Your task to perform on an android device: Show the shopping cart on amazon. Add razer blade to the cart on amazon Image 0: 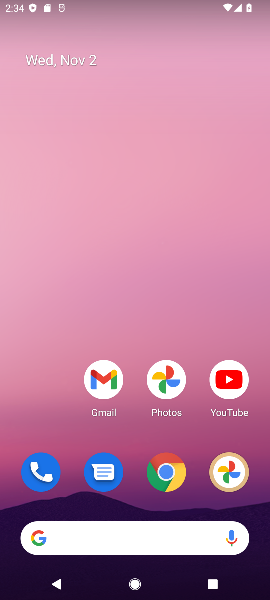
Step 0: click (167, 474)
Your task to perform on an android device: Show the shopping cart on amazon. Add razer blade to the cart on amazon Image 1: 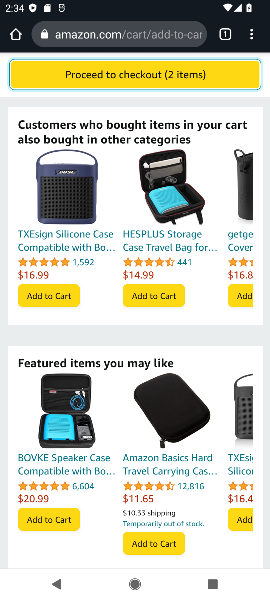
Step 1: click (97, 35)
Your task to perform on an android device: Show the shopping cart on amazon. Add razer blade to the cart on amazon Image 2: 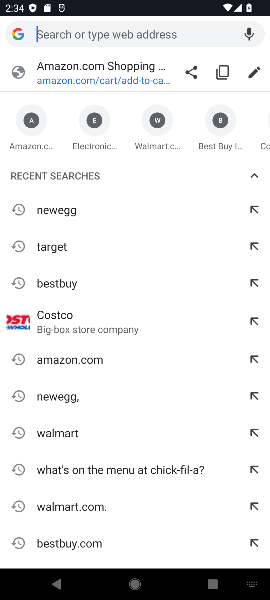
Step 2: type "amazon"
Your task to perform on an android device: Show the shopping cart on amazon. Add razer blade to the cart on amazon Image 3: 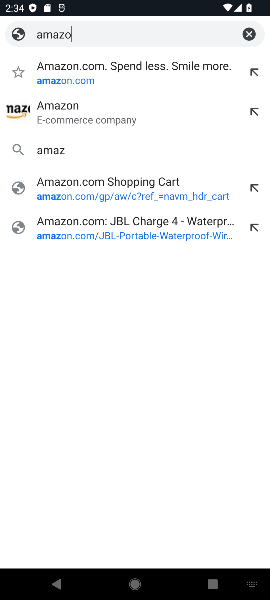
Step 3: type ""
Your task to perform on an android device: Show the shopping cart on amazon. Add razer blade to the cart on amazon Image 4: 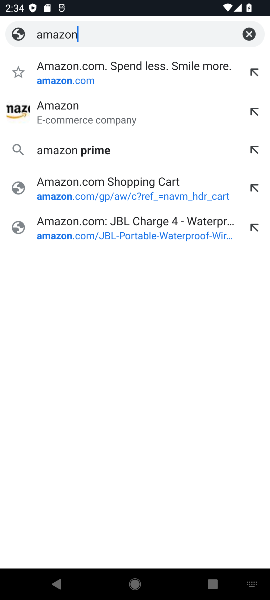
Step 4: click (184, 71)
Your task to perform on an android device: Show the shopping cart on amazon. Add razer blade to the cart on amazon Image 5: 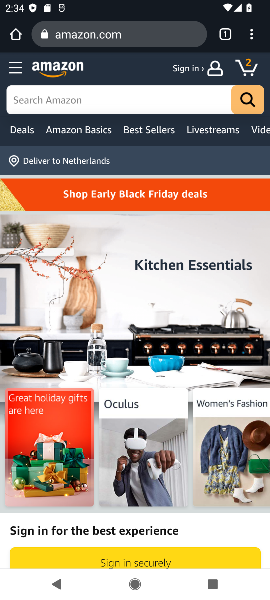
Step 5: click (48, 97)
Your task to perform on an android device: Show the shopping cart on amazon. Add razer blade to the cart on amazon Image 6: 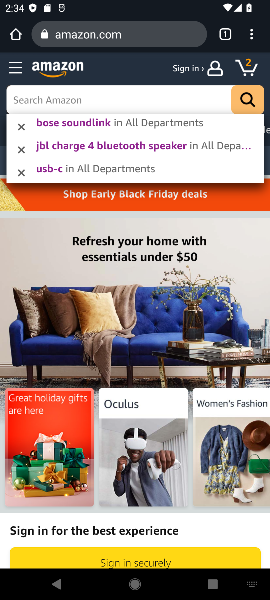
Step 6: click (253, 75)
Your task to perform on an android device: Show the shopping cart on amazon. Add razer blade to the cart on amazon Image 7: 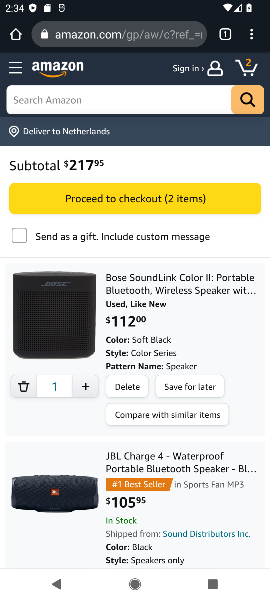
Step 7: click (18, 383)
Your task to perform on an android device: Show the shopping cart on amazon. Add razer blade to the cart on amazon Image 8: 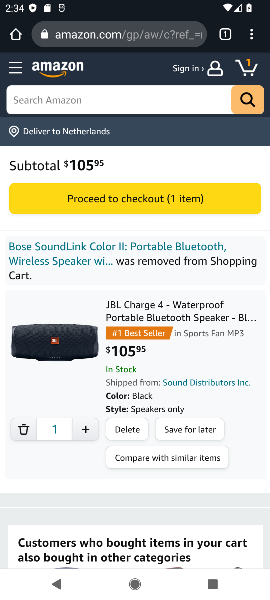
Step 8: click (22, 424)
Your task to perform on an android device: Show the shopping cart on amazon. Add razer blade to the cart on amazon Image 9: 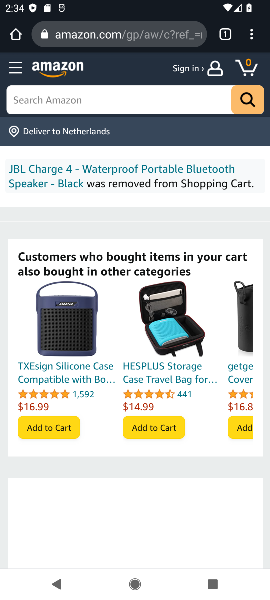
Step 9: click (122, 108)
Your task to perform on an android device: Show the shopping cart on amazon. Add razer blade to the cart on amazon Image 10: 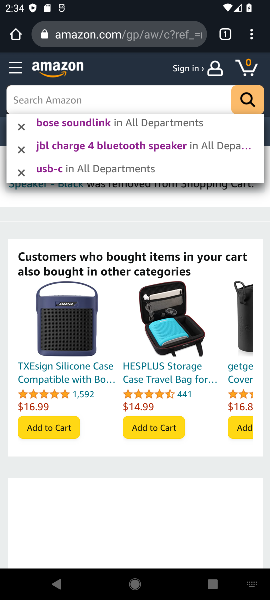
Step 10: type "razer blade"
Your task to perform on an android device: Show the shopping cart on amazon. Add razer blade to the cart on amazon Image 11: 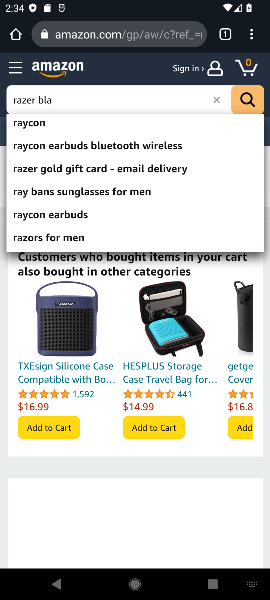
Step 11: type ""
Your task to perform on an android device: Show the shopping cart on amazon. Add razer blade to the cart on amazon Image 12: 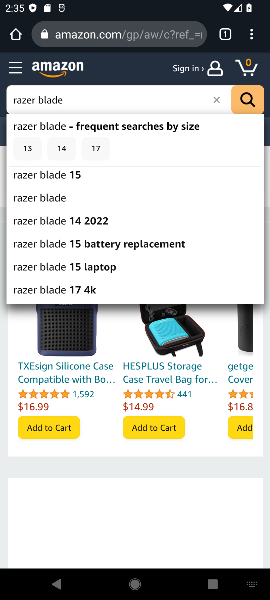
Step 12: click (35, 179)
Your task to perform on an android device: Show the shopping cart on amazon. Add razer blade to the cart on amazon Image 13: 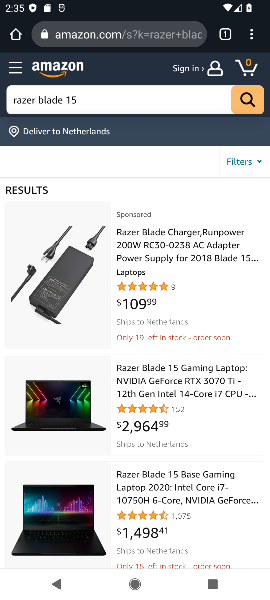
Step 13: click (190, 381)
Your task to perform on an android device: Show the shopping cart on amazon. Add razer blade to the cart on amazon Image 14: 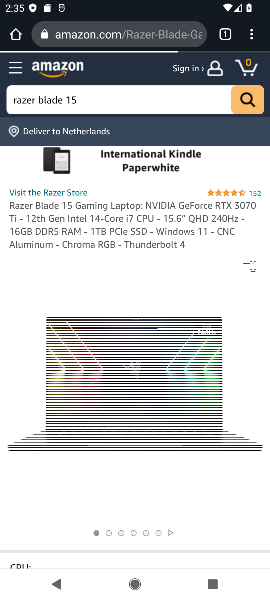
Step 14: drag from (191, 415) to (192, 309)
Your task to perform on an android device: Show the shopping cart on amazon. Add razer blade to the cart on amazon Image 15: 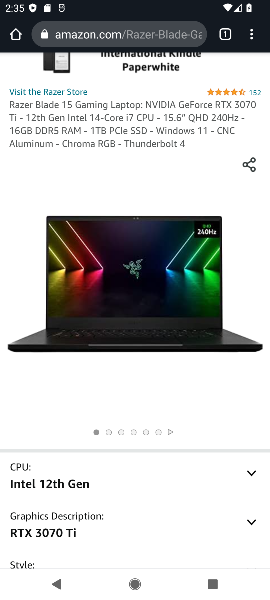
Step 15: drag from (166, 445) to (175, 307)
Your task to perform on an android device: Show the shopping cart on amazon. Add razer blade to the cart on amazon Image 16: 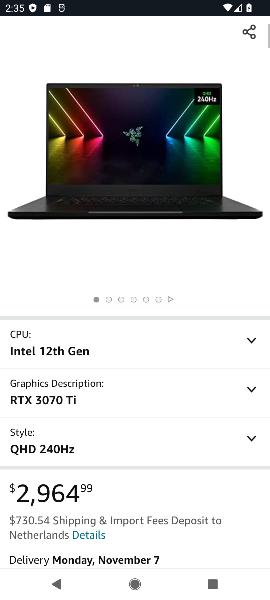
Step 16: drag from (199, 436) to (192, 243)
Your task to perform on an android device: Show the shopping cart on amazon. Add razer blade to the cart on amazon Image 17: 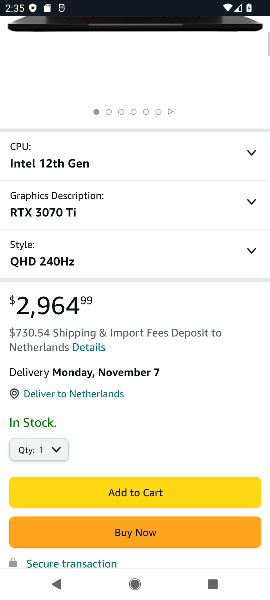
Step 17: drag from (154, 428) to (155, 262)
Your task to perform on an android device: Show the shopping cart on amazon. Add razer blade to the cart on amazon Image 18: 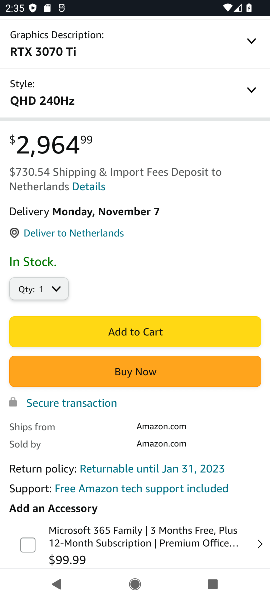
Step 18: click (154, 331)
Your task to perform on an android device: Show the shopping cart on amazon. Add razer blade to the cart on amazon Image 19: 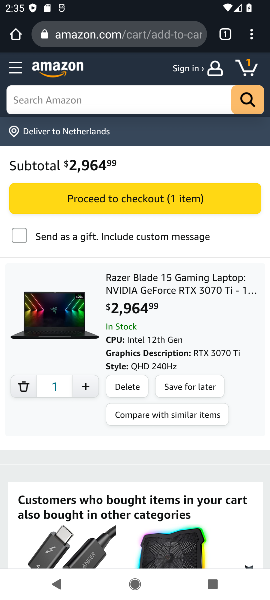
Step 19: click (134, 209)
Your task to perform on an android device: Show the shopping cart on amazon. Add razer blade to the cart on amazon Image 20: 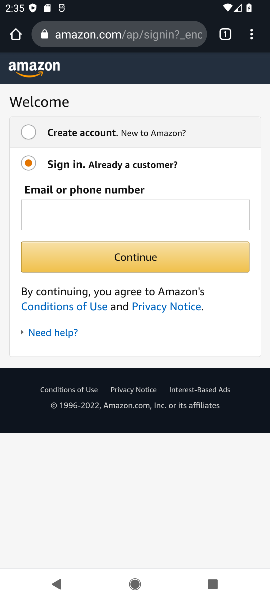
Step 20: task complete